Your task to perform on an android device: change the clock display to analog Image 0: 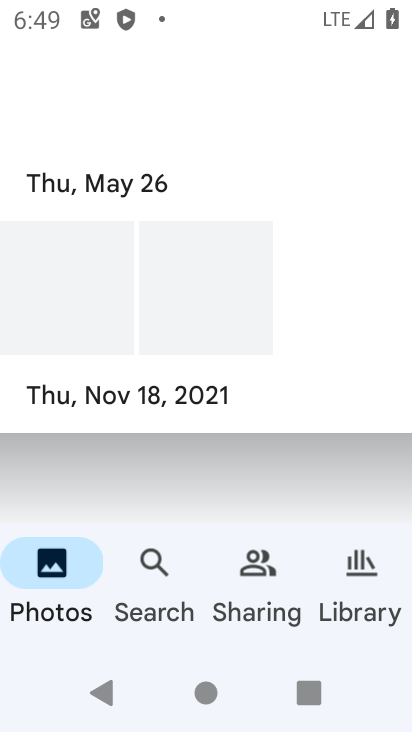
Step 0: press home button
Your task to perform on an android device: change the clock display to analog Image 1: 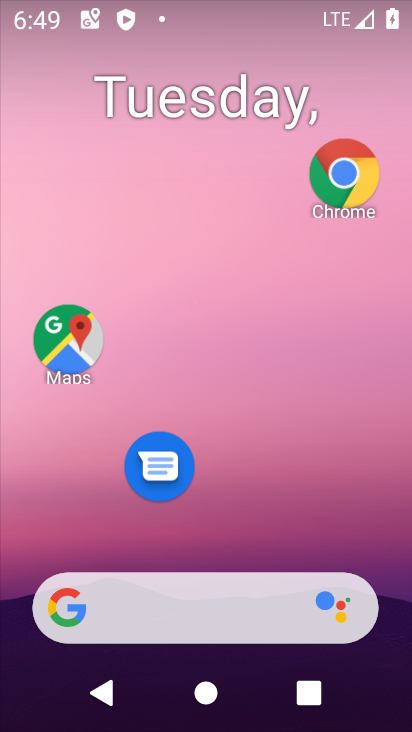
Step 1: drag from (391, 587) to (371, 264)
Your task to perform on an android device: change the clock display to analog Image 2: 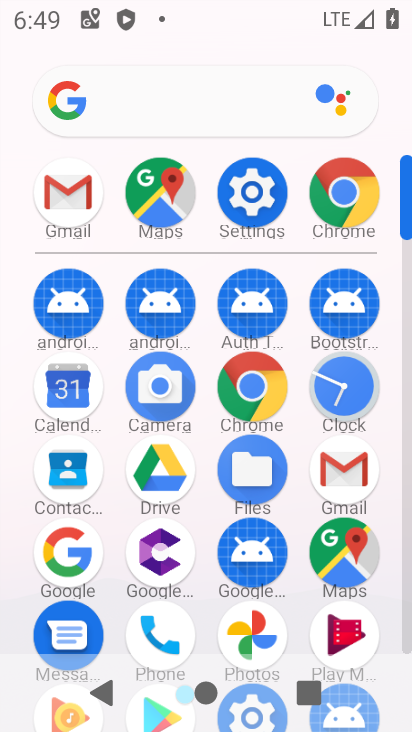
Step 2: click (368, 405)
Your task to perform on an android device: change the clock display to analog Image 3: 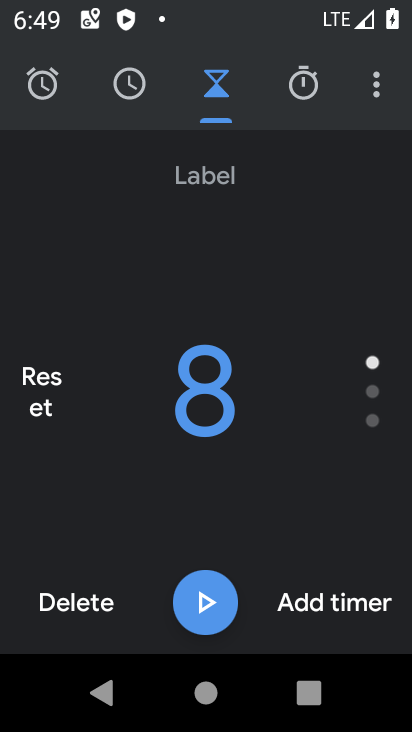
Step 3: drag from (373, 81) to (319, 161)
Your task to perform on an android device: change the clock display to analog Image 4: 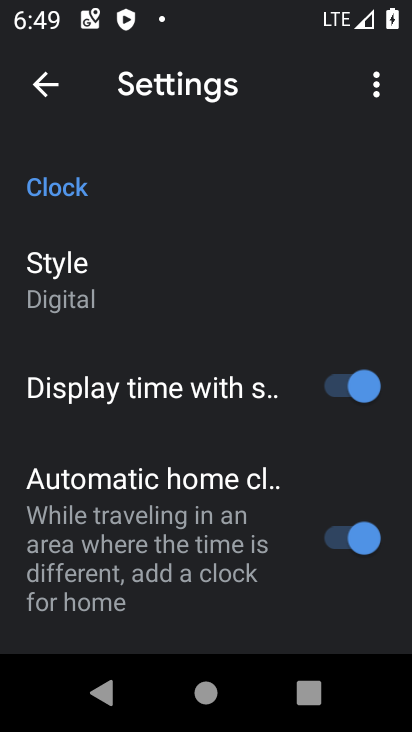
Step 4: click (108, 257)
Your task to perform on an android device: change the clock display to analog Image 5: 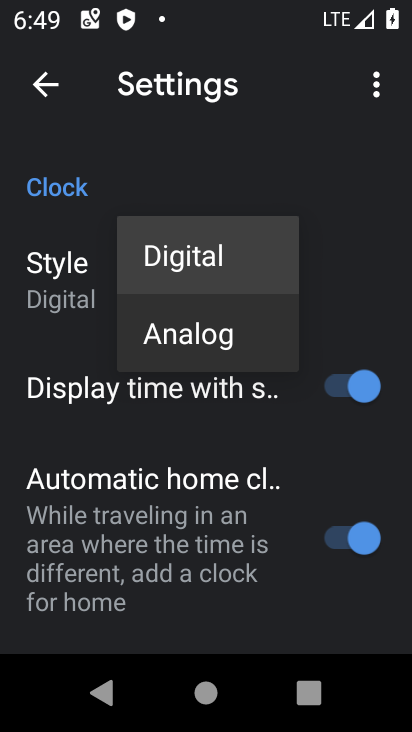
Step 5: click (212, 320)
Your task to perform on an android device: change the clock display to analog Image 6: 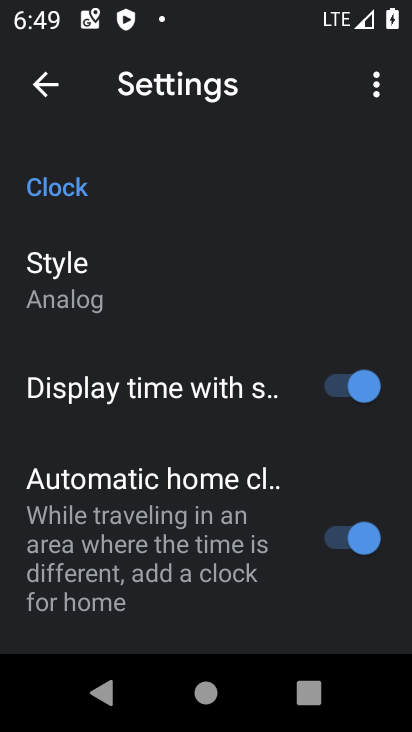
Step 6: task complete